Your task to perform on an android device: Go to Android settings Image 0: 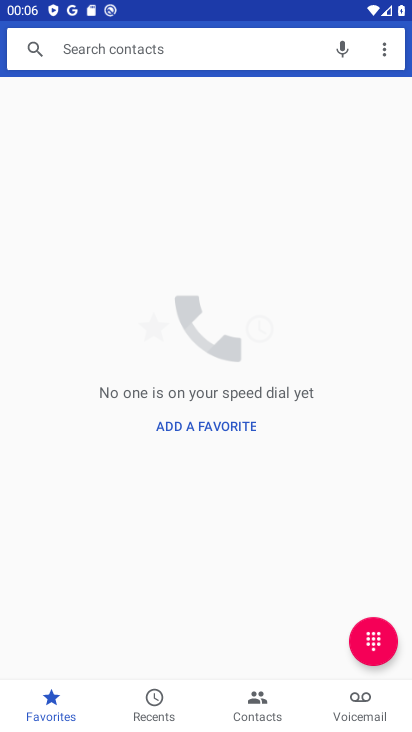
Step 0: press home button
Your task to perform on an android device: Go to Android settings Image 1: 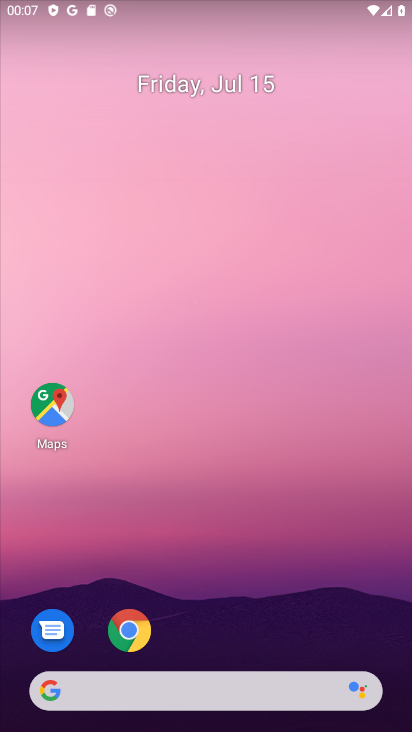
Step 1: drag from (262, 654) to (280, 131)
Your task to perform on an android device: Go to Android settings Image 2: 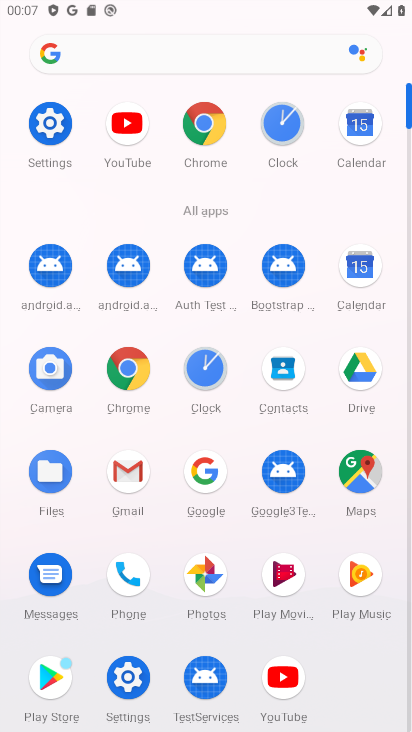
Step 2: click (53, 116)
Your task to perform on an android device: Go to Android settings Image 3: 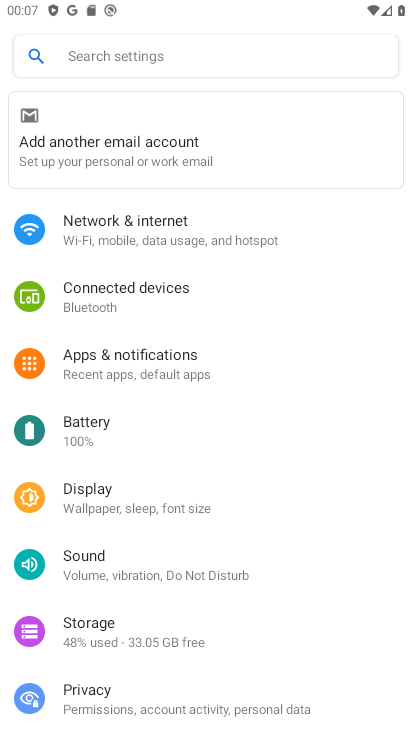
Step 3: drag from (161, 618) to (219, 159)
Your task to perform on an android device: Go to Android settings Image 4: 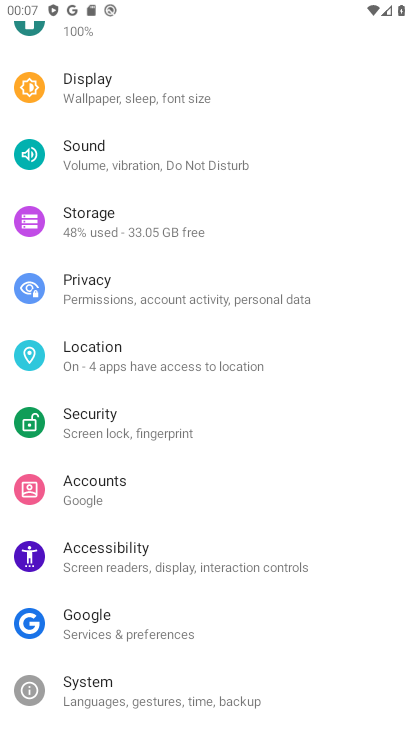
Step 4: click (162, 701)
Your task to perform on an android device: Go to Android settings Image 5: 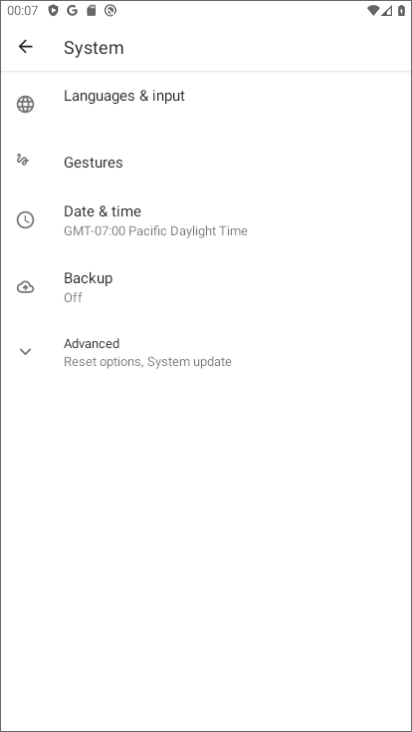
Step 5: task complete